Your task to perform on an android device: Search for sushi restaurants on Maps Image 0: 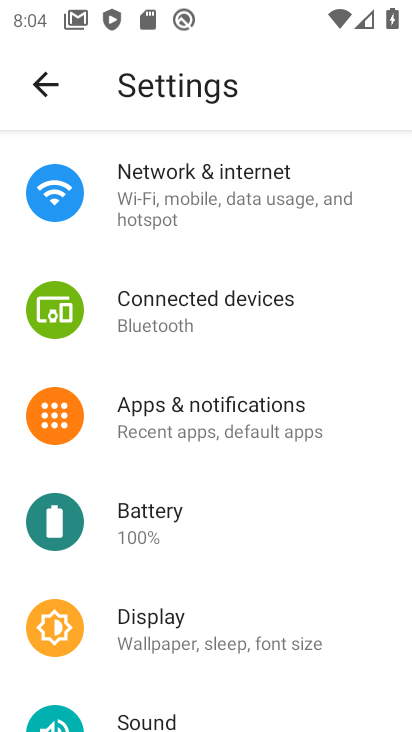
Step 0: press home button
Your task to perform on an android device: Search for sushi restaurants on Maps Image 1: 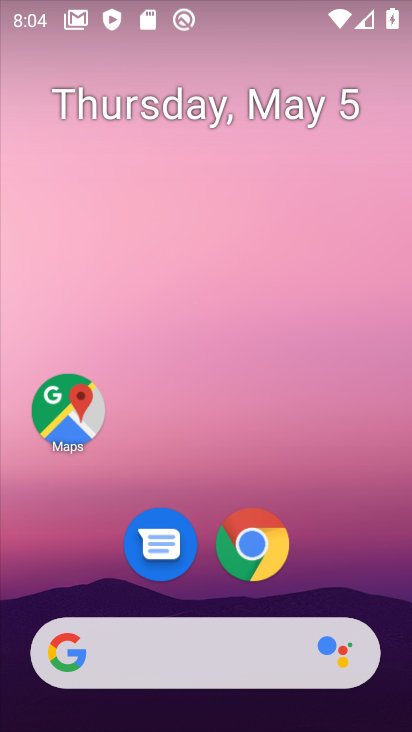
Step 1: drag from (388, 628) to (261, 116)
Your task to perform on an android device: Search for sushi restaurants on Maps Image 2: 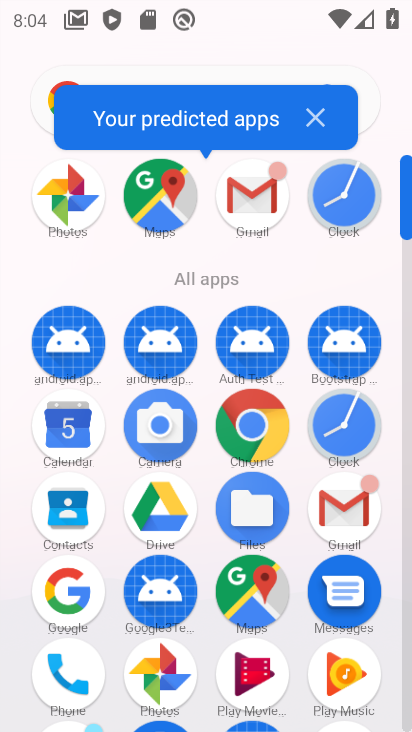
Step 2: click (248, 607)
Your task to perform on an android device: Search for sushi restaurants on Maps Image 3: 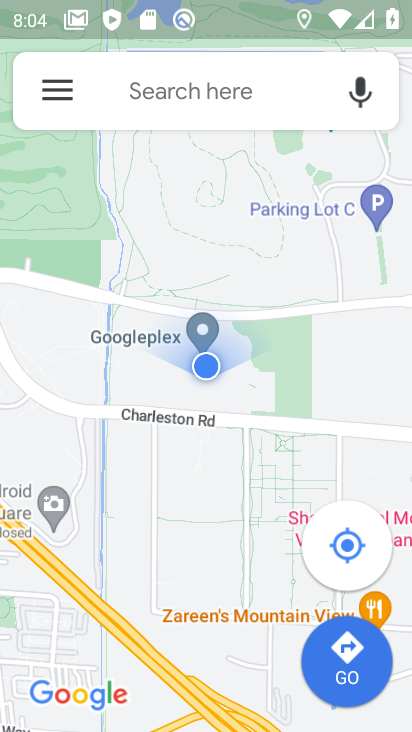
Step 3: click (200, 95)
Your task to perform on an android device: Search for sushi restaurants on Maps Image 4: 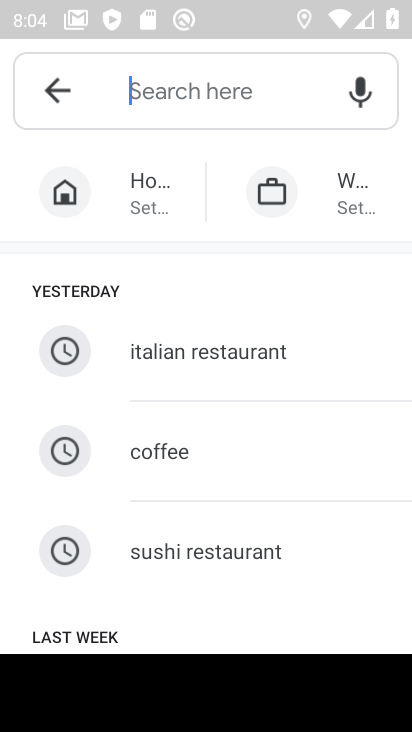
Step 4: click (248, 541)
Your task to perform on an android device: Search for sushi restaurants on Maps Image 5: 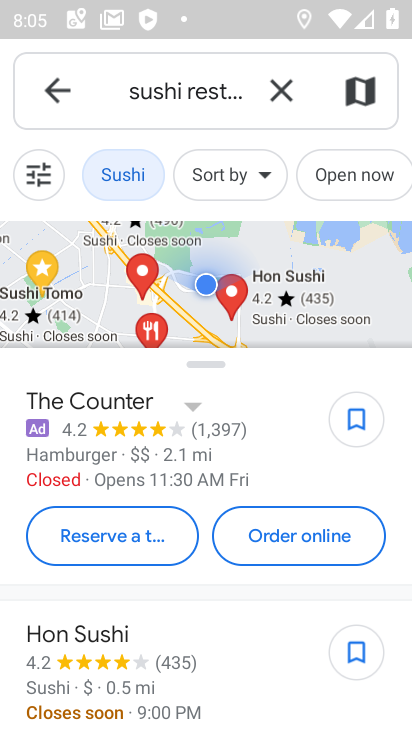
Step 5: task complete